Your task to perform on an android device: toggle javascript in the chrome app Image 0: 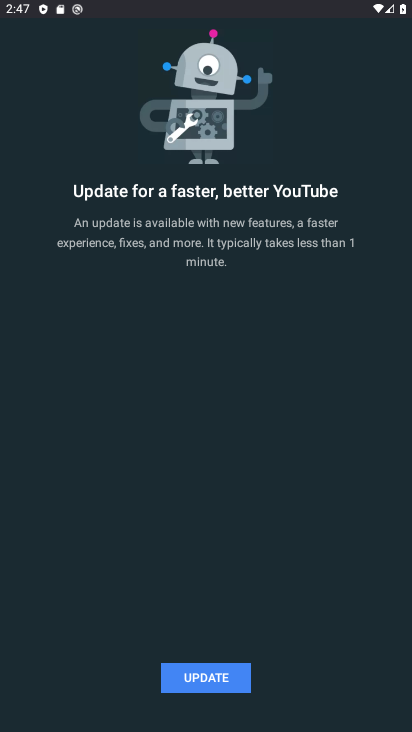
Step 0: press home button
Your task to perform on an android device: toggle javascript in the chrome app Image 1: 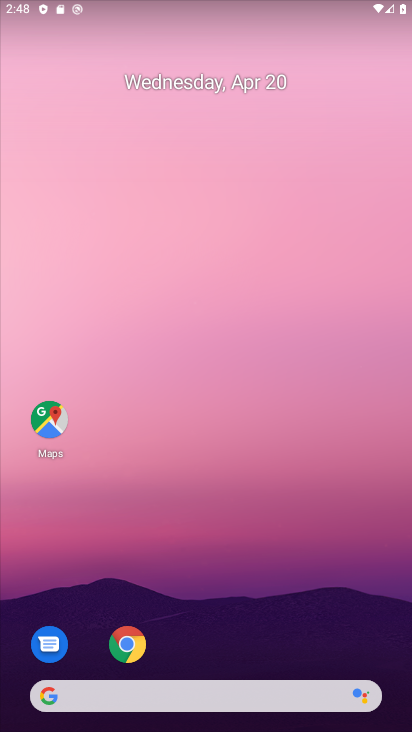
Step 1: click (127, 651)
Your task to perform on an android device: toggle javascript in the chrome app Image 2: 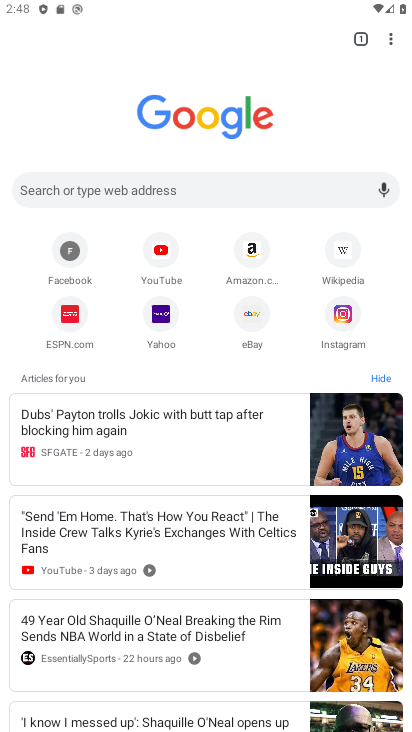
Step 2: click (394, 42)
Your task to perform on an android device: toggle javascript in the chrome app Image 3: 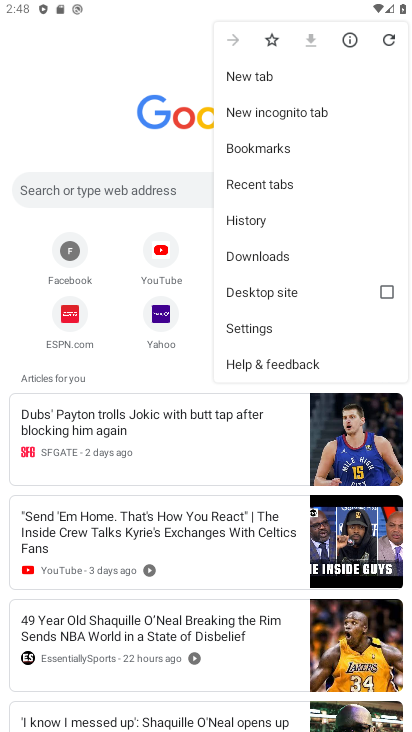
Step 3: click (254, 324)
Your task to perform on an android device: toggle javascript in the chrome app Image 4: 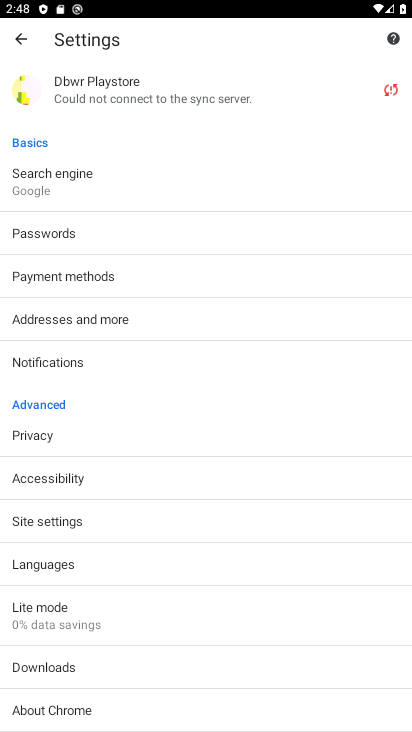
Step 4: drag from (91, 607) to (96, 289)
Your task to perform on an android device: toggle javascript in the chrome app Image 5: 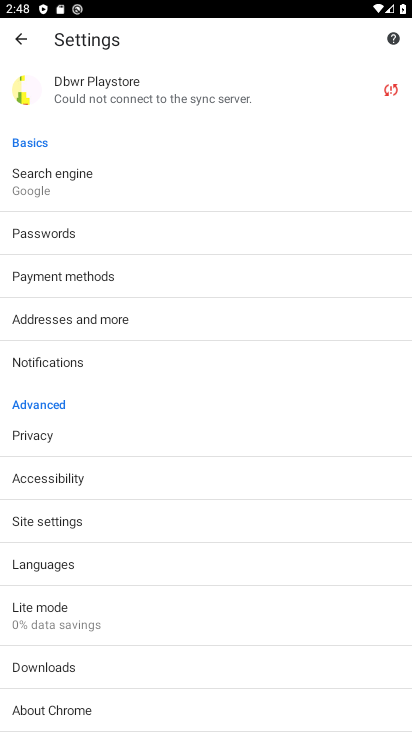
Step 5: drag from (149, 528) to (168, 182)
Your task to perform on an android device: toggle javascript in the chrome app Image 6: 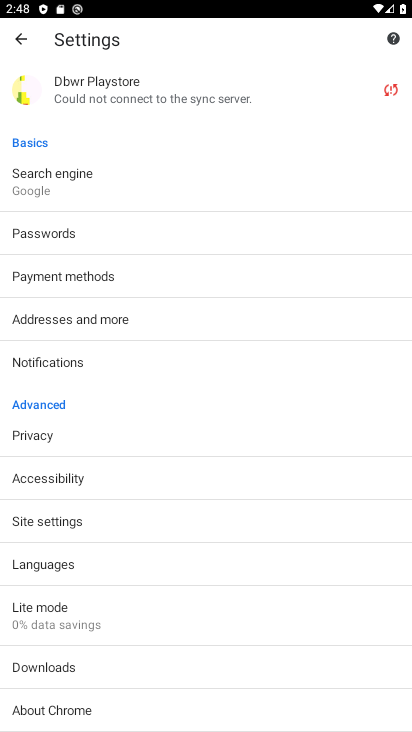
Step 6: click (110, 526)
Your task to perform on an android device: toggle javascript in the chrome app Image 7: 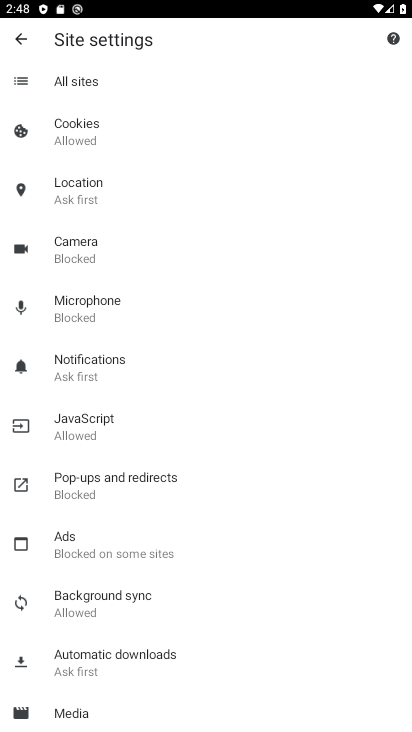
Step 7: click (99, 433)
Your task to perform on an android device: toggle javascript in the chrome app Image 8: 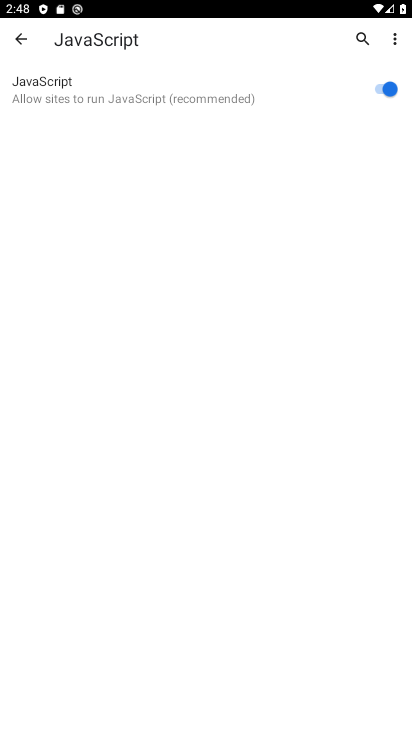
Step 8: task complete